Your task to perform on an android device: What's the weather going to be this weekend? Image 0: 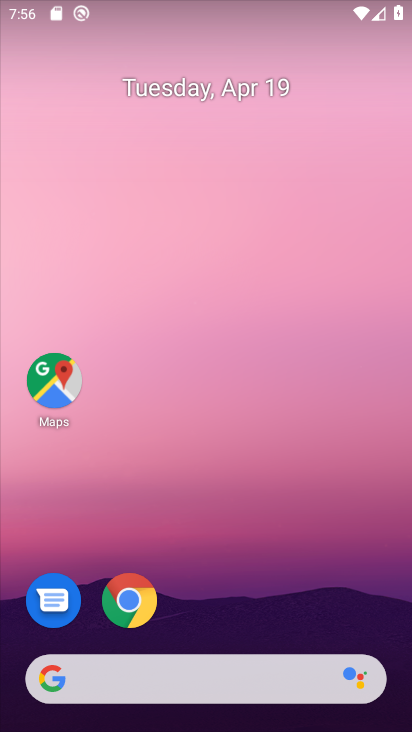
Step 0: click (197, 678)
Your task to perform on an android device: What's the weather going to be this weekend? Image 1: 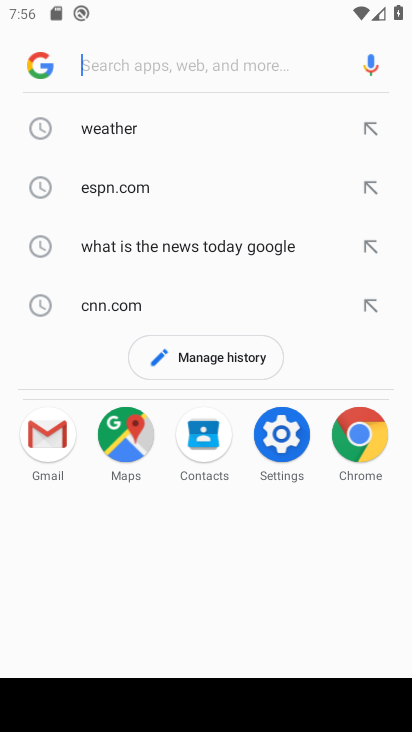
Step 1: click (124, 125)
Your task to perform on an android device: What's the weather going to be this weekend? Image 2: 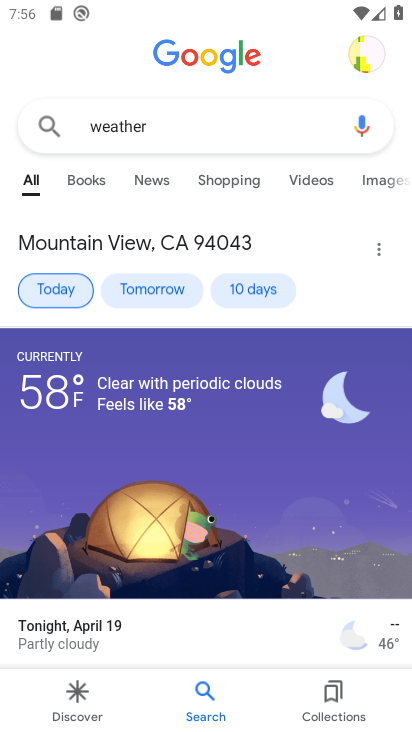
Step 2: click (259, 286)
Your task to perform on an android device: What's the weather going to be this weekend? Image 3: 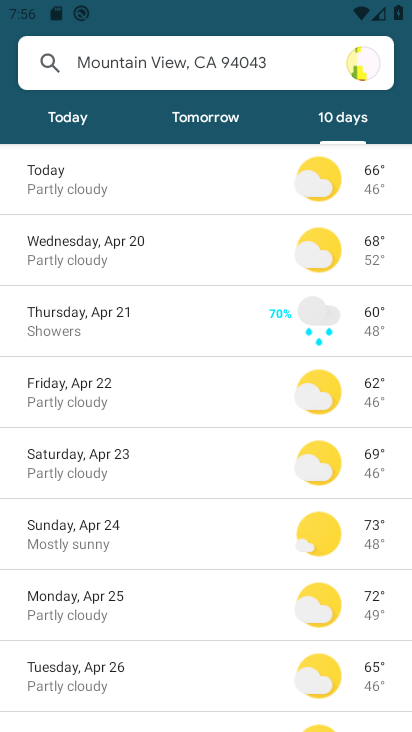
Step 3: task complete